Your task to perform on an android device: What's the weather going to be tomorrow? Image 0: 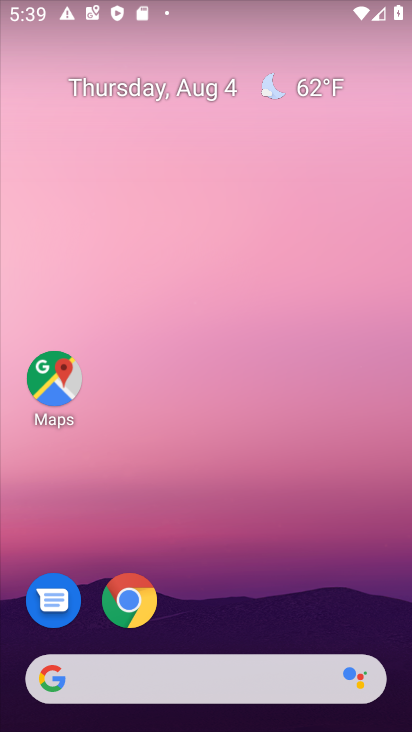
Step 0: click (159, 664)
Your task to perform on an android device: What's the weather going to be tomorrow? Image 1: 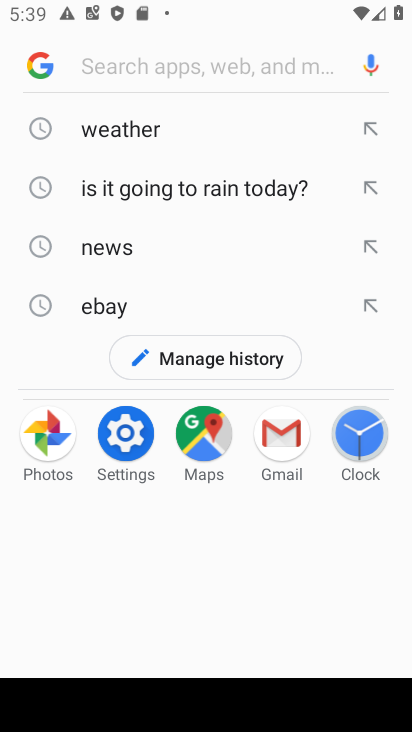
Step 1: click (137, 126)
Your task to perform on an android device: What's the weather going to be tomorrow? Image 2: 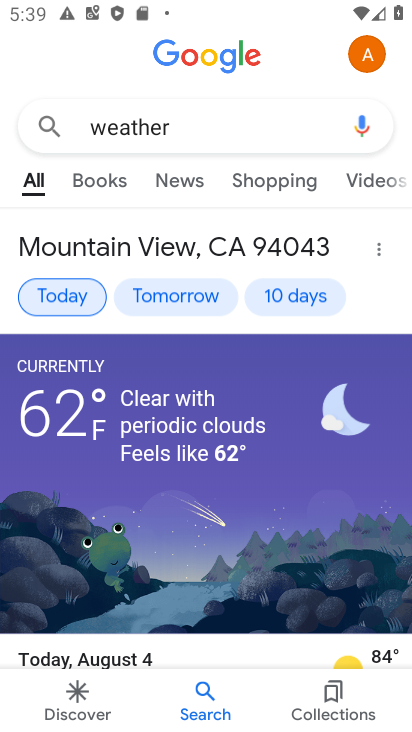
Step 2: click (187, 298)
Your task to perform on an android device: What's the weather going to be tomorrow? Image 3: 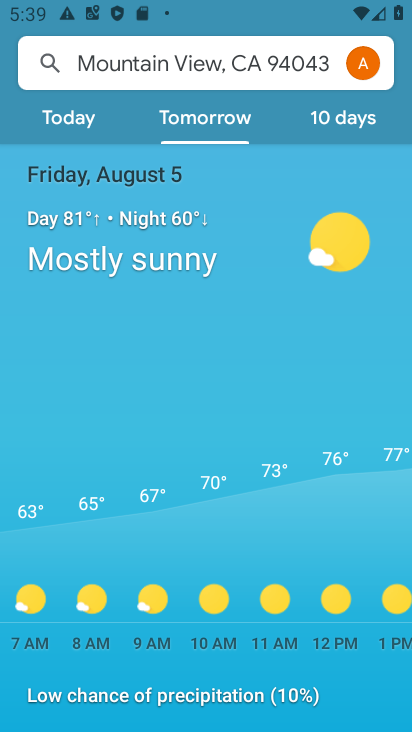
Step 3: task complete